Your task to perform on an android device: toggle wifi Image 0: 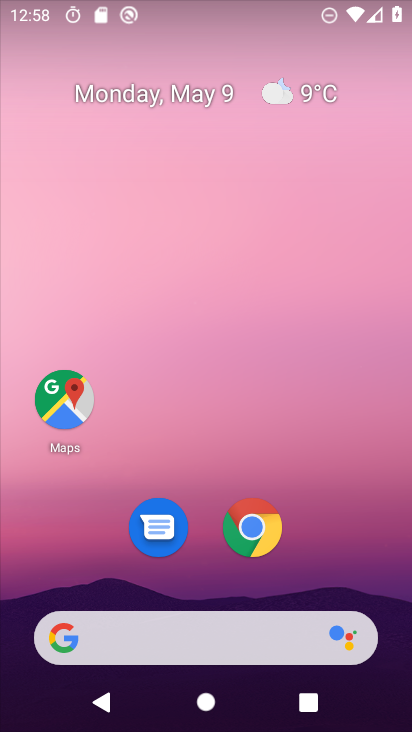
Step 0: drag from (116, 13) to (160, 548)
Your task to perform on an android device: toggle wifi Image 1: 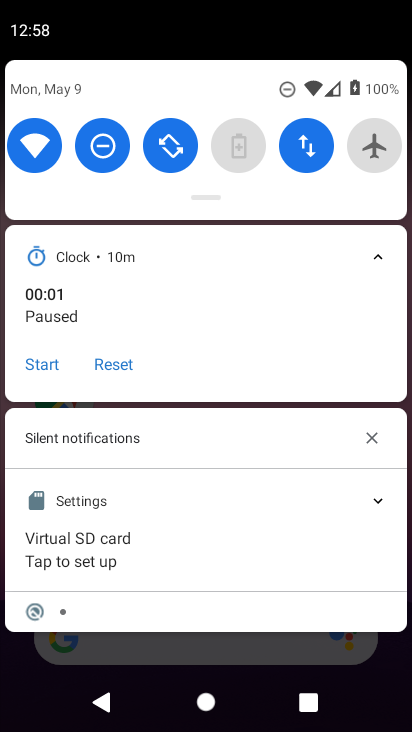
Step 1: click (30, 148)
Your task to perform on an android device: toggle wifi Image 2: 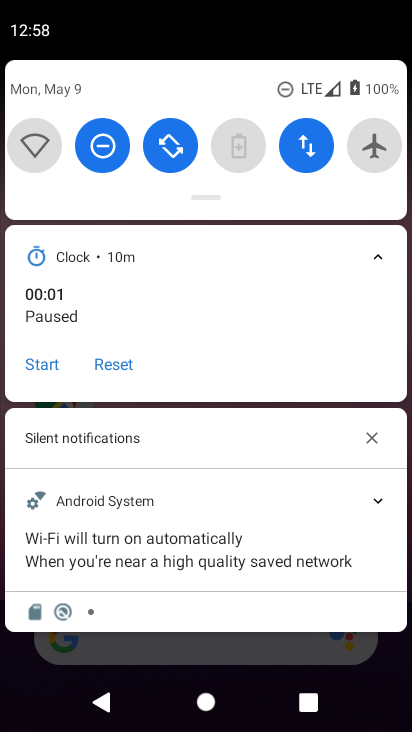
Step 2: task complete